Your task to perform on an android device: turn on translation in the chrome app Image 0: 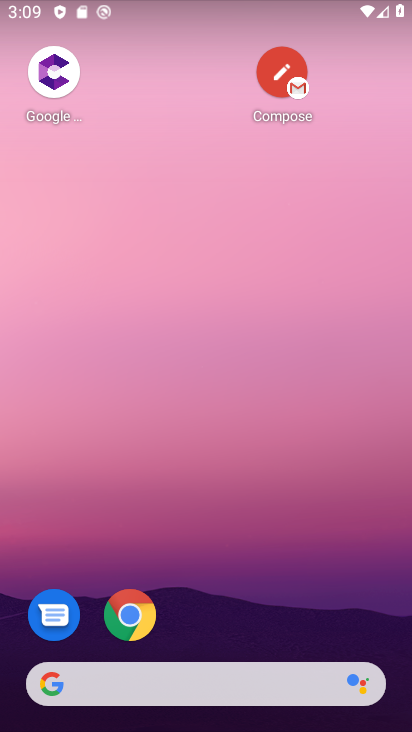
Step 0: drag from (220, 335) to (167, 31)
Your task to perform on an android device: turn on translation in the chrome app Image 1: 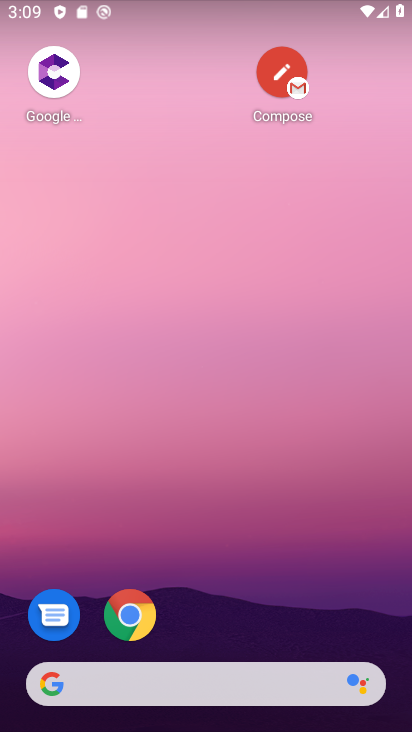
Step 1: click (105, 13)
Your task to perform on an android device: turn on translation in the chrome app Image 2: 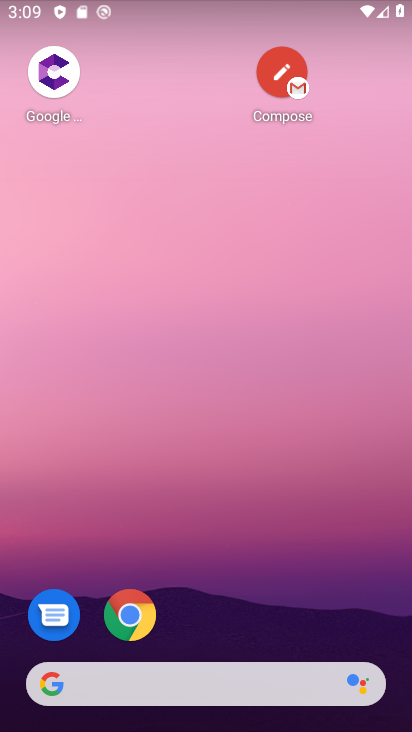
Step 2: drag from (222, 496) to (122, 24)
Your task to perform on an android device: turn on translation in the chrome app Image 3: 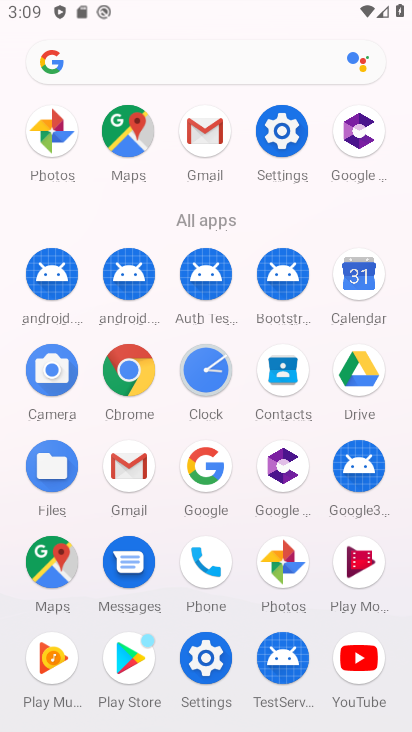
Step 3: click (137, 351)
Your task to perform on an android device: turn on translation in the chrome app Image 4: 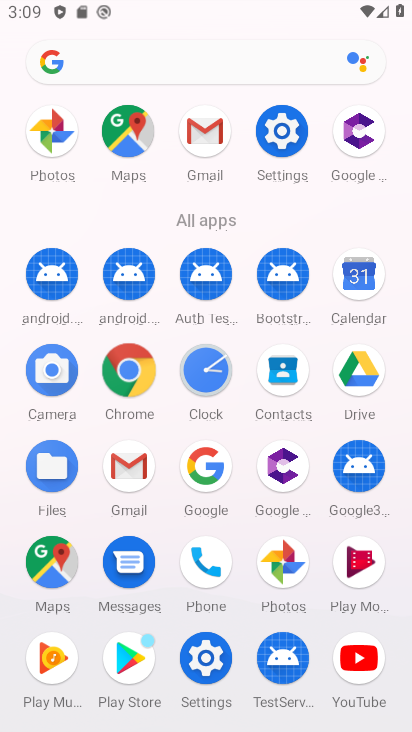
Step 4: click (139, 362)
Your task to perform on an android device: turn on translation in the chrome app Image 5: 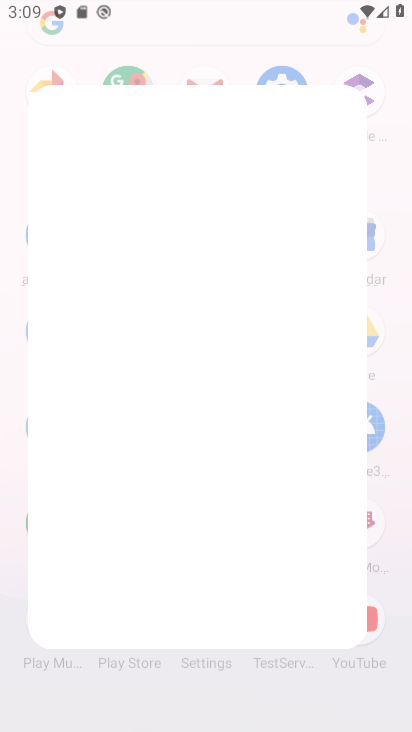
Step 5: click (133, 363)
Your task to perform on an android device: turn on translation in the chrome app Image 6: 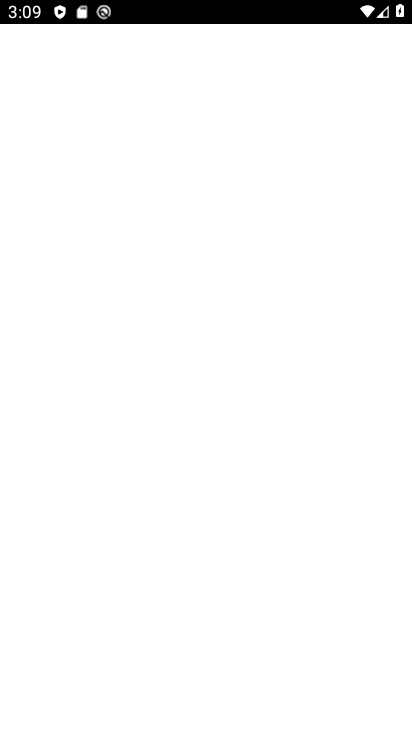
Step 6: click (133, 363)
Your task to perform on an android device: turn on translation in the chrome app Image 7: 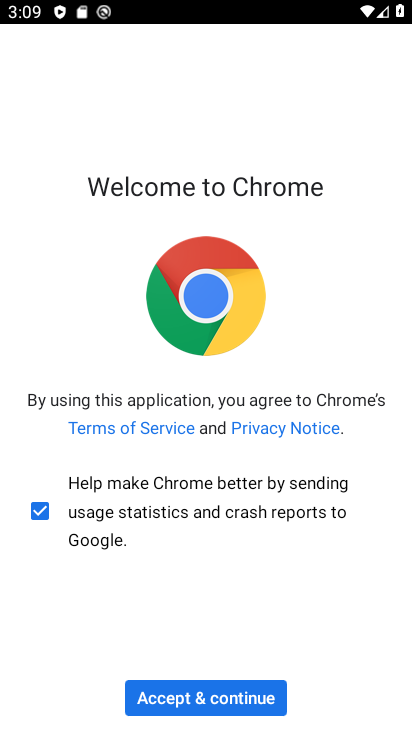
Step 7: click (212, 698)
Your task to perform on an android device: turn on translation in the chrome app Image 8: 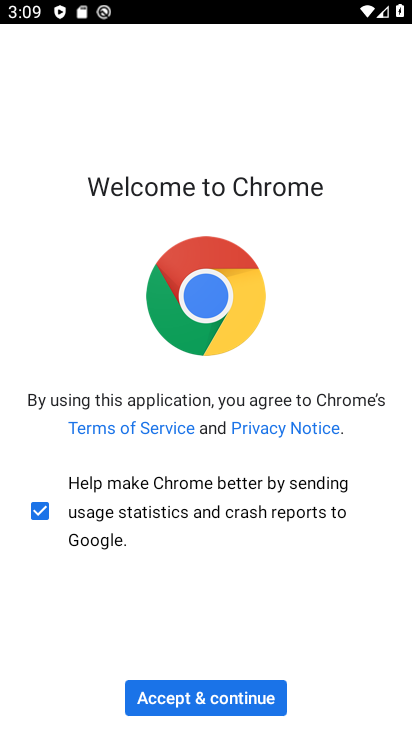
Step 8: click (210, 704)
Your task to perform on an android device: turn on translation in the chrome app Image 9: 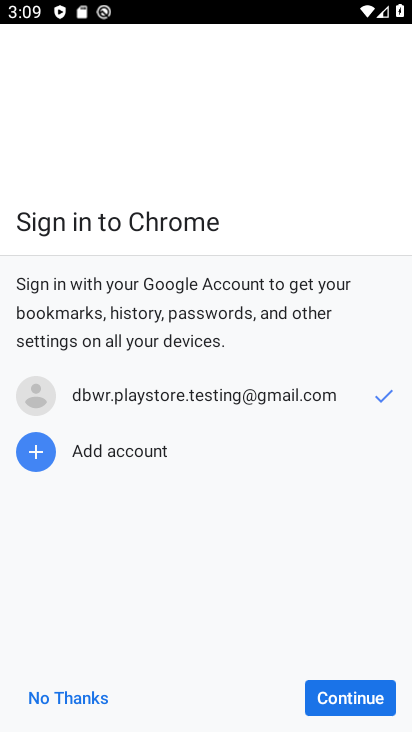
Step 9: click (210, 704)
Your task to perform on an android device: turn on translation in the chrome app Image 10: 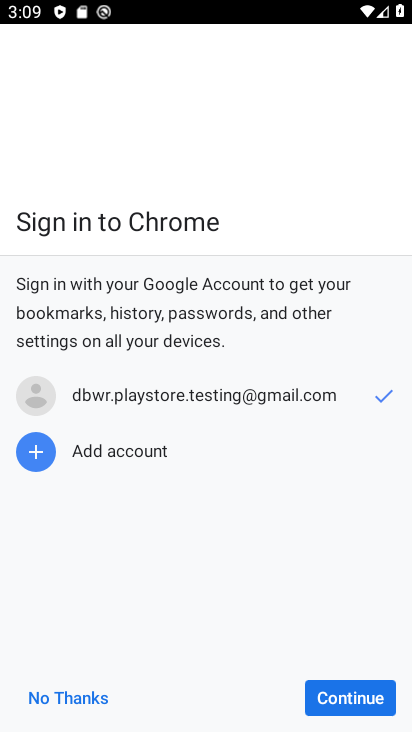
Step 10: click (212, 707)
Your task to perform on an android device: turn on translation in the chrome app Image 11: 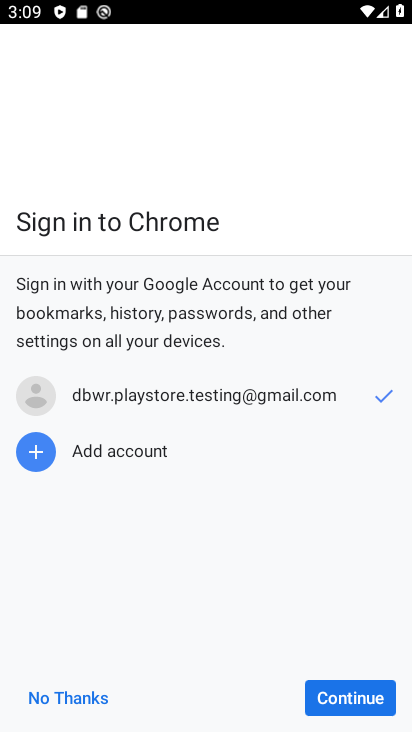
Step 11: click (211, 707)
Your task to perform on an android device: turn on translation in the chrome app Image 12: 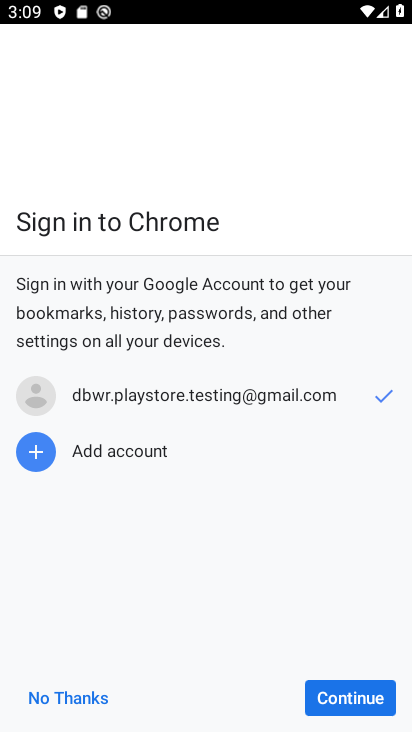
Step 12: click (214, 705)
Your task to perform on an android device: turn on translation in the chrome app Image 13: 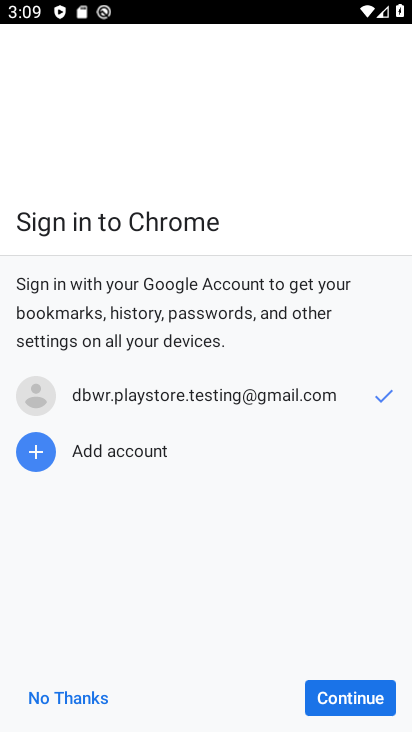
Step 13: click (359, 696)
Your task to perform on an android device: turn on translation in the chrome app Image 14: 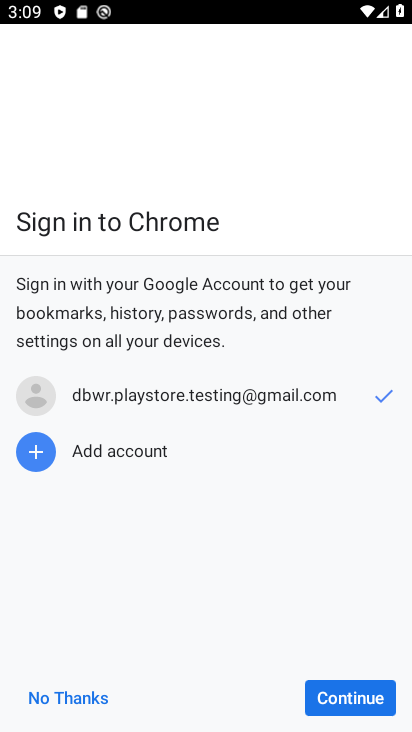
Step 14: click (359, 699)
Your task to perform on an android device: turn on translation in the chrome app Image 15: 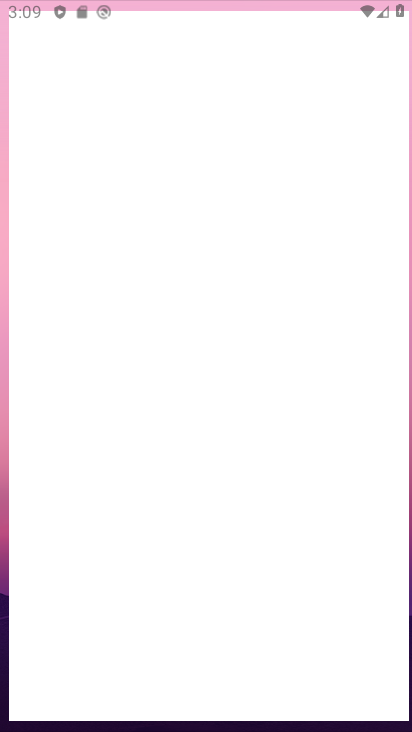
Step 15: click (354, 678)
Your task to perform on an android device: turn on translation in the chrome app Image 16: 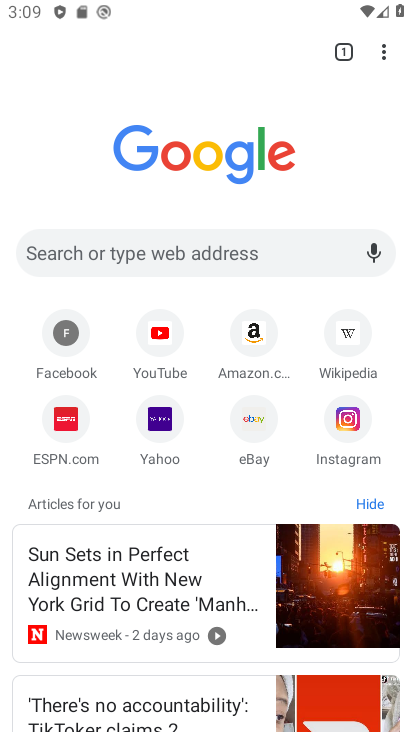
Step 16: drag from (384, 58) to (191, 440)
Your task to perform on an android device: turn on translation in the chrome app Image 17: 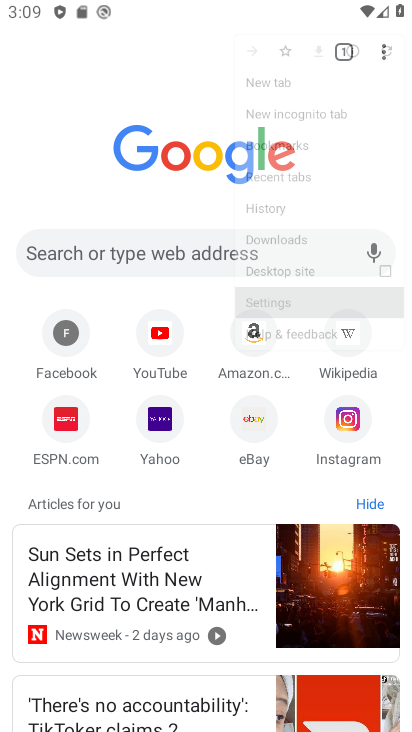
Step 17: click (193, 439)
Your task to perform on an android device: turn on translation in the chrome app Image 18: 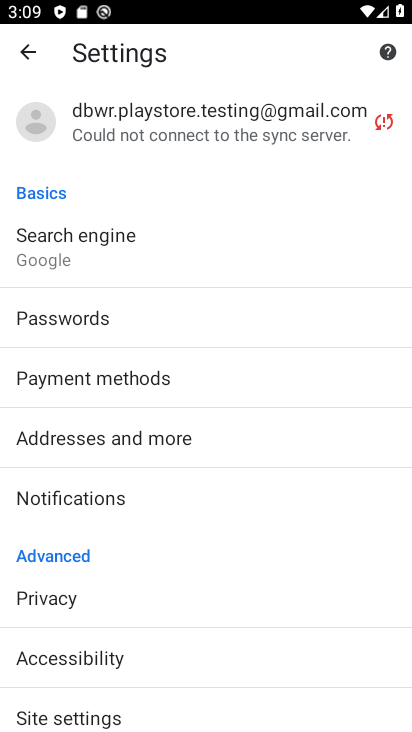
Step 18: drag from (109, 532) to (126, 243)
Your task to perform on an android device: turn on translation in the chrome app Image 19: 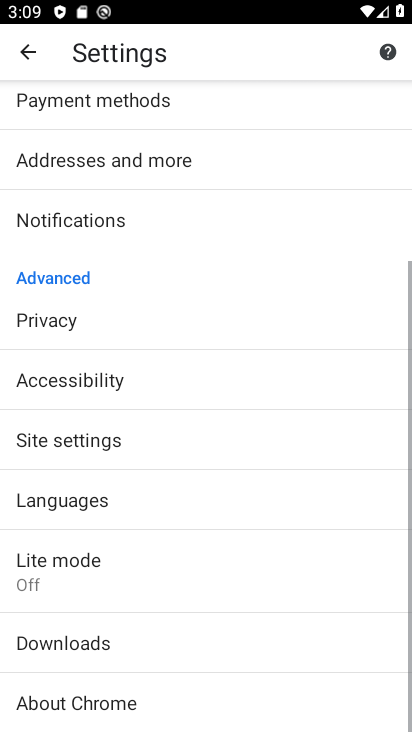
Step 19: drag from (206, 594) to (229, 238)
Your task to perform on an android device: turn on translation in the chrome app Image 20: 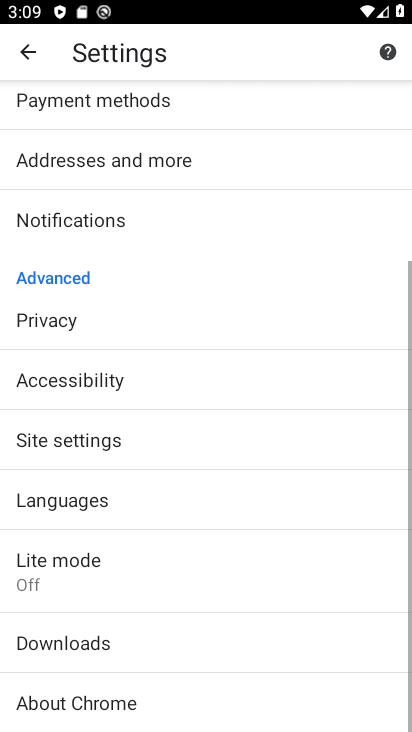
Step 20: click (54, 501)
Your task to perform on an android device: turn on translation in the chrome app Image 21: 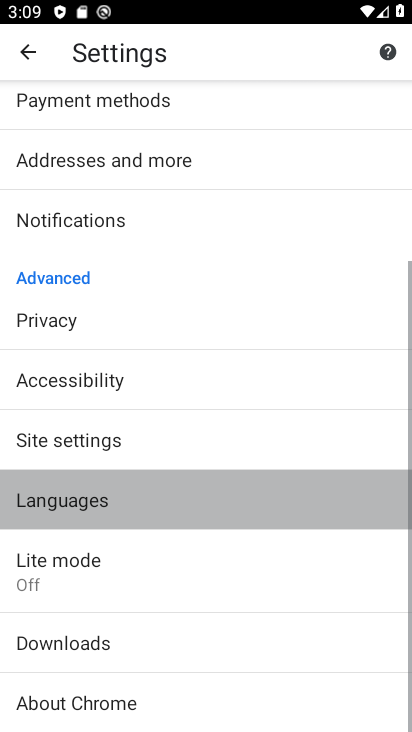
Step 21: click (83, 509)
Your task to perform on an android device: turn on translation in the chrome app Image 22: 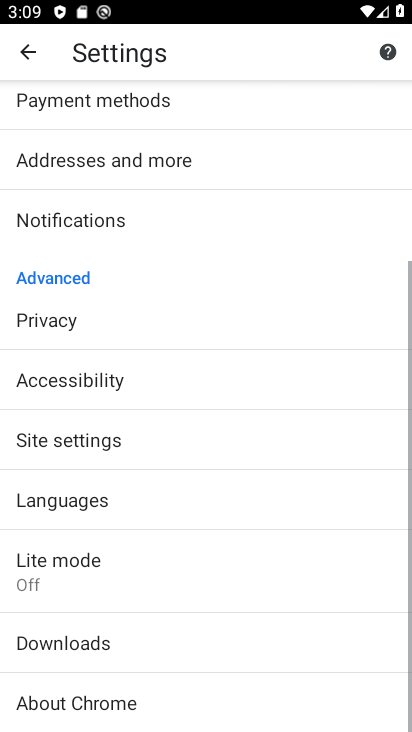
Step 22: click (97, 517)
Your task to perform on an android device: turn on translation in the chrome app Image 23: 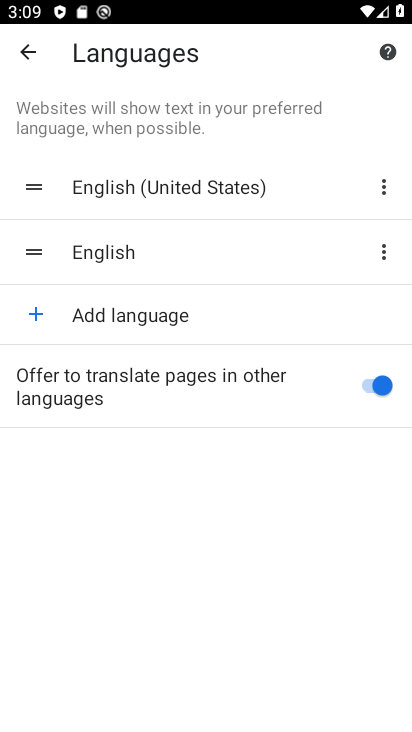
Step 23: click (381, 383)
Your task to perform on an android device: turn on translation in the chrome app Image 24: 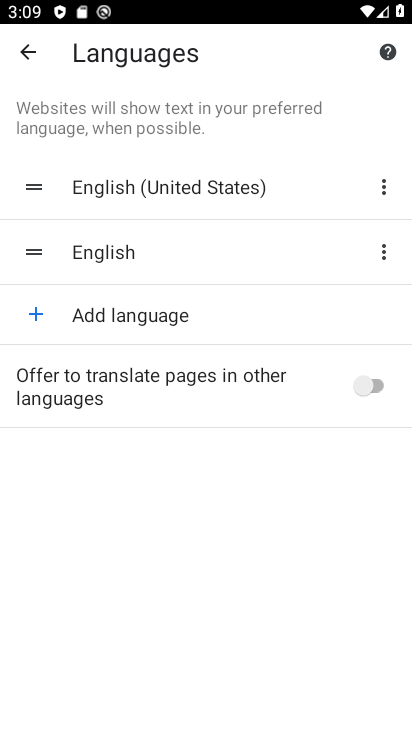
Step 24: click (370, 381)
Your task to perform on an android device: turn on translation in the chrome app Image 25: 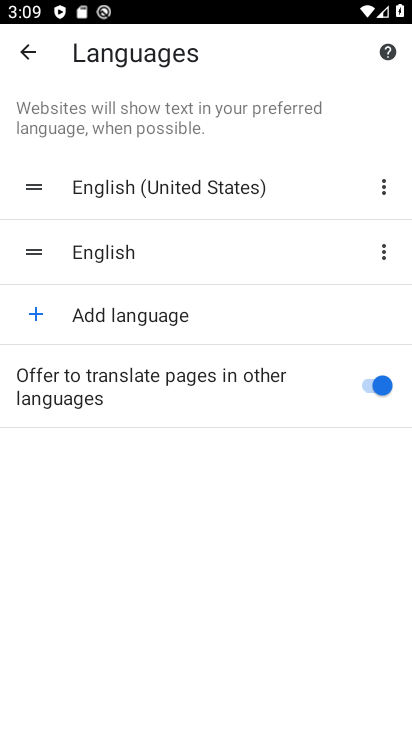
Step 25: task complete